Your task to perform on an android device: open app "Flipkart Online Shopping App" Image 0: 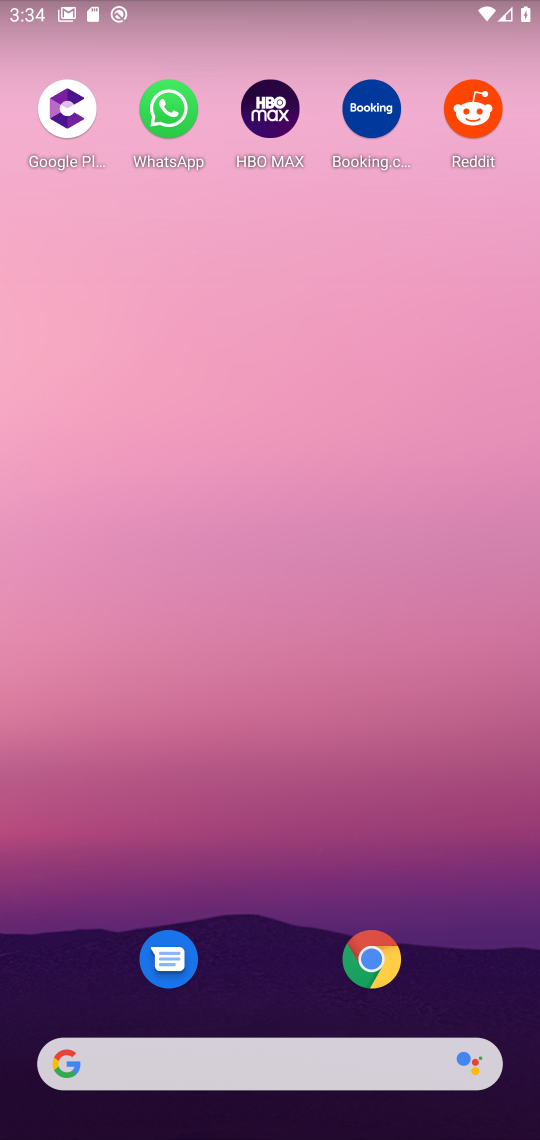
Step 0: drag from (325, 964) to (441, 548)
Your task to perform on an android device: open app "Flipkart Online Shopping App" Image 1: 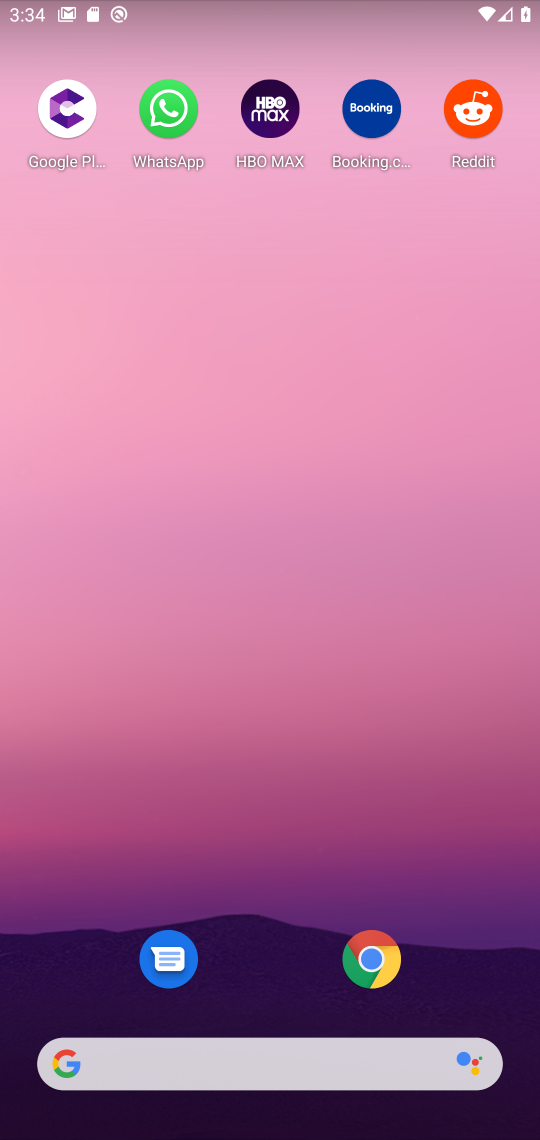
Step 1: task complete